Your task to perform on an android device: move an email to a new category in the gmail app Image 0: 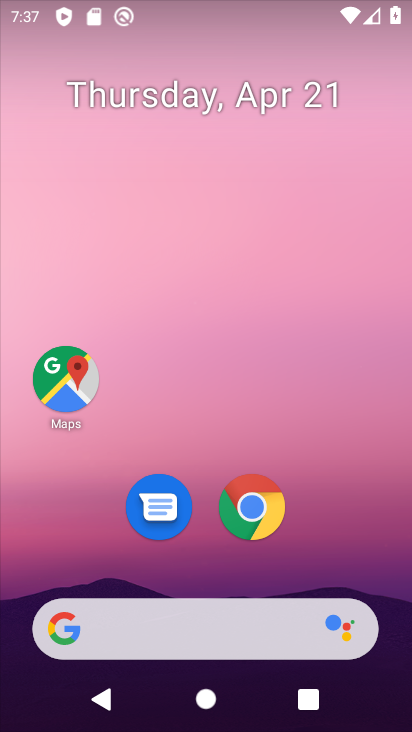
Step 0: drag from (362, 542) to (357, 111)
Your task to perform on an android device: move an email to a new category in the gmail app Image 1: 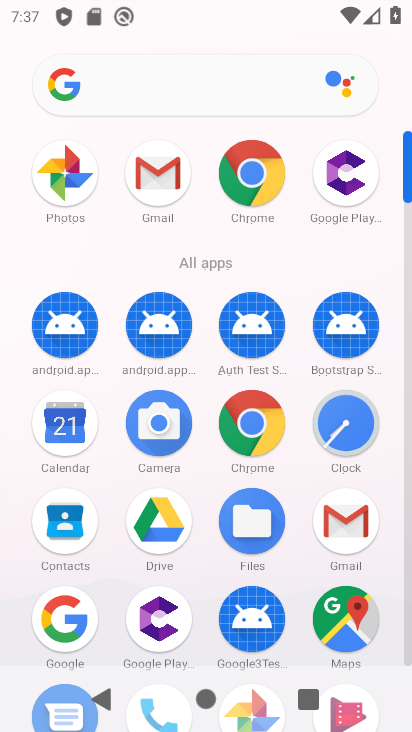
Step 1: click (352, 531)
Your task to perform on an android device: move an email to a new category in the gmail app Image 2: 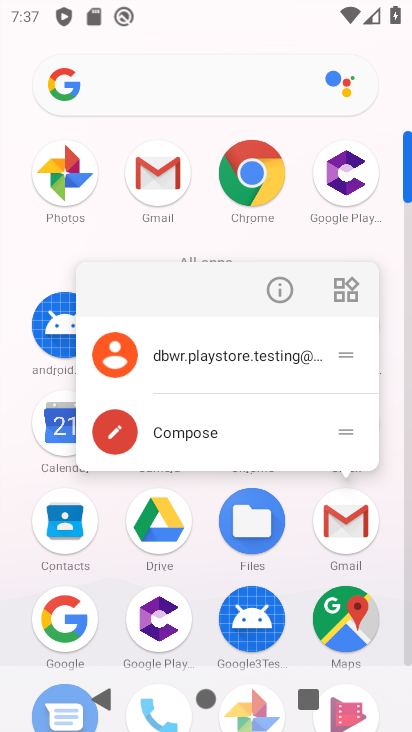
Step 2: click (362, 534)
Your task to perform on an android device: move an email to a new category in the gmail app Image 3: 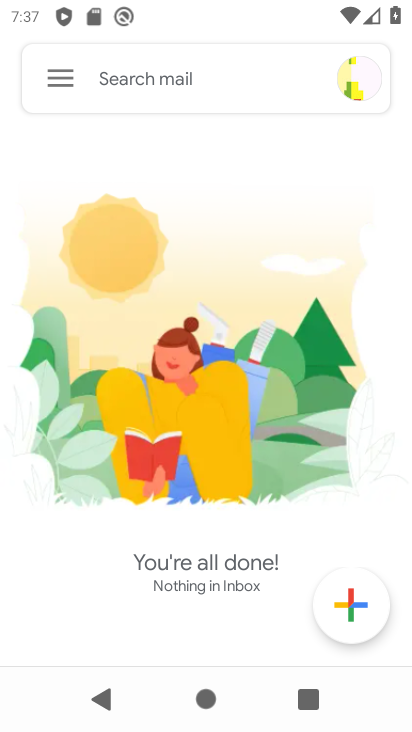
Step 3: click (66, 76)
Your task to perform on an android device: move an email to a new category in the gmail app Image 4: 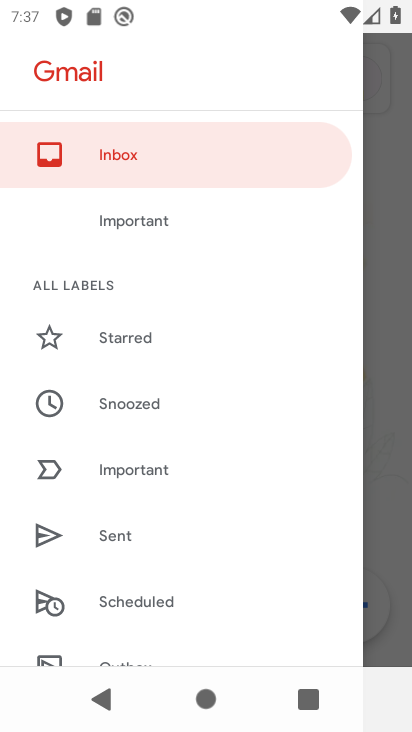
Step 4: drag from (264, 518) to (286, 240)
Your task to perform on an android device: move an email to a new category in the gmail app Image 5: 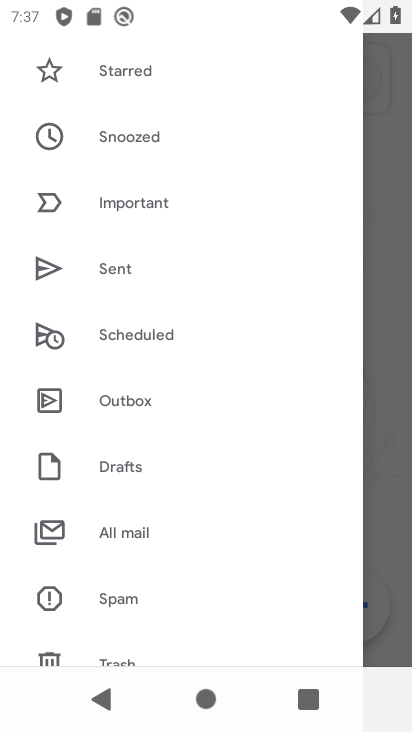
Step 5: drag from (296, 562) to (293, 245)
Your task to perform on an android device: move an email to a new category in the gmail app Image 6: 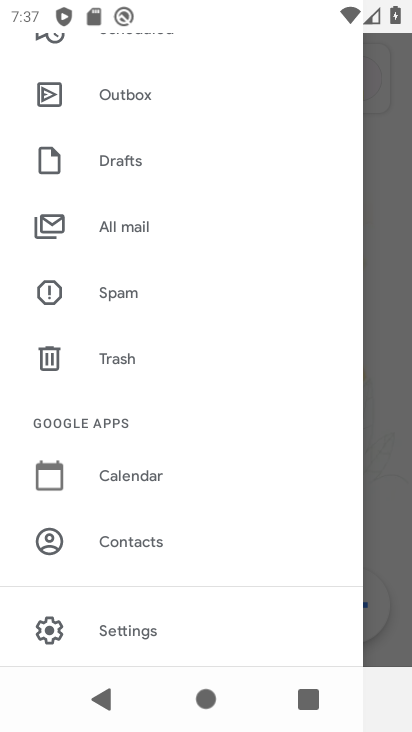
Step 6: drag from (294, 563) to (298, 293)
Your task to perform on an android device: move an email to a new category in the gmail app Image 7: 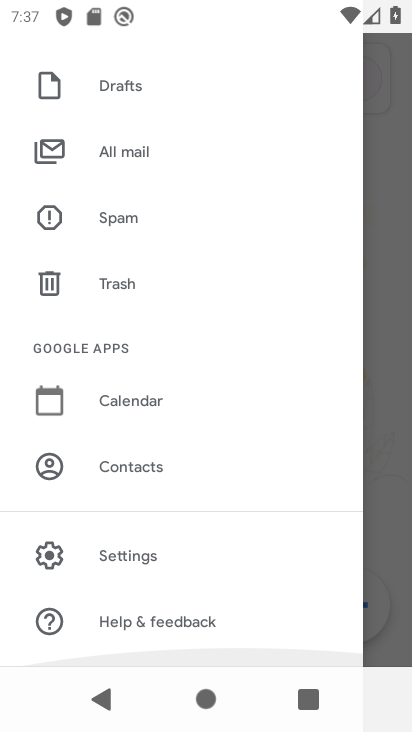
Step 7: drag from (306, 191) to (317, 474)
Your task to perform on an android device: move an email to a new category in the gmail app Image 8: 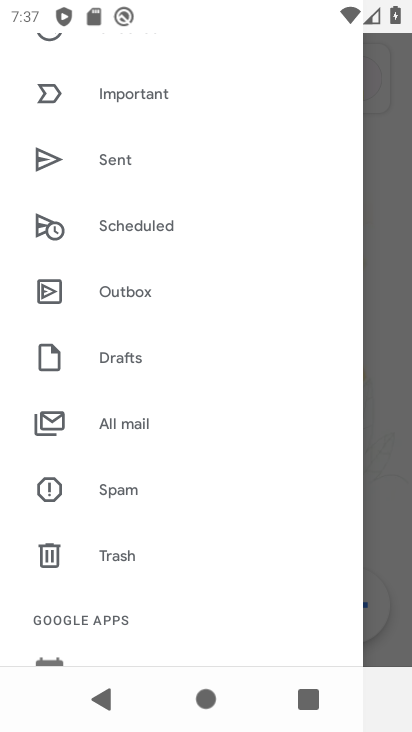
Step 8: drag from (322, 176) to (332, 477)
Your task to perform on an android device: move an email to a new category in the gmail app Image 9: 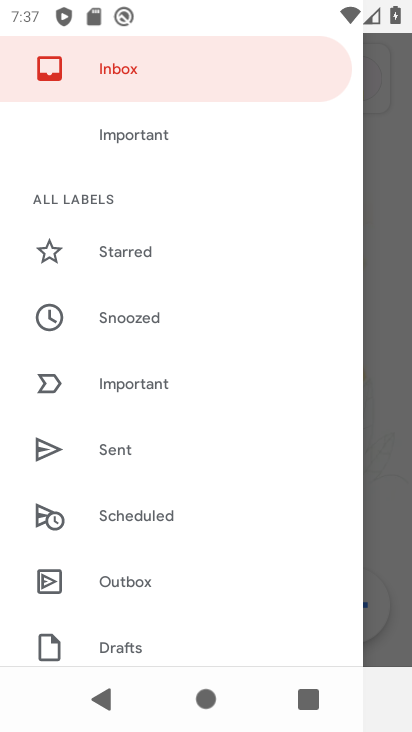
Step 9: drag from (316, 225) to (310, 406)
Your task to perform on an android device: move an email to a new category in the gmail app Image 10: 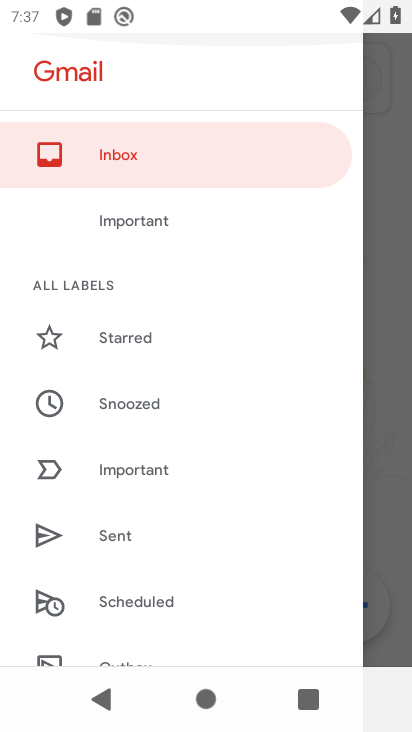
Step 10: click (177, 155)
Your task to perform on an android device: move an email to a new category in the gmail app Image 11: 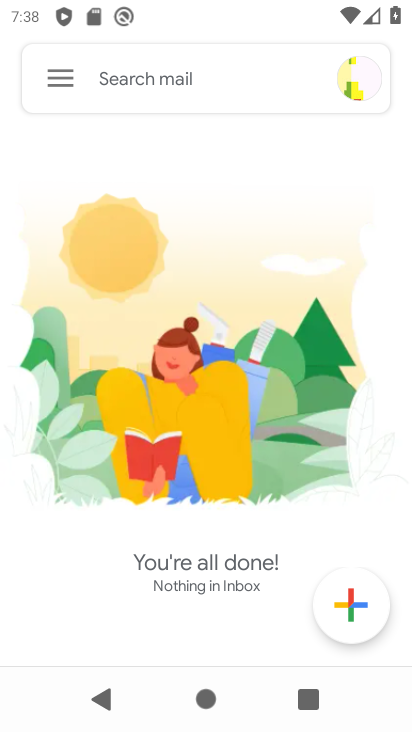
Step 11: task complete